Your task to perform on an android device: change timer sound Image 0: 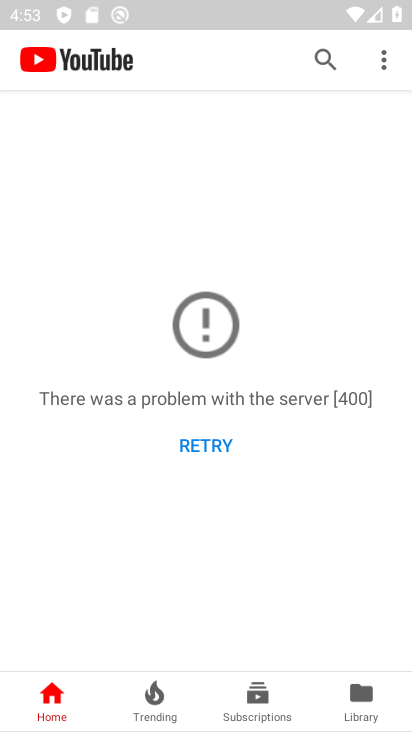
Step 0: press home button
Your task to perform on an android device: change timer sound Image 1: 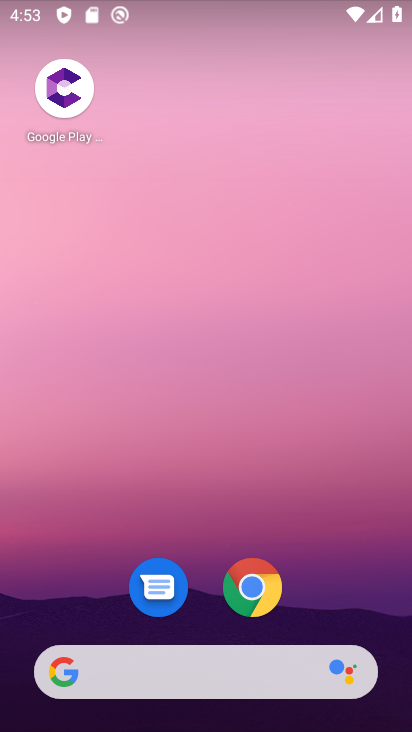
Step 1: drag from (311, 593) to (241, 131)
Your task to perform on an android device: change timer sound Image 2: 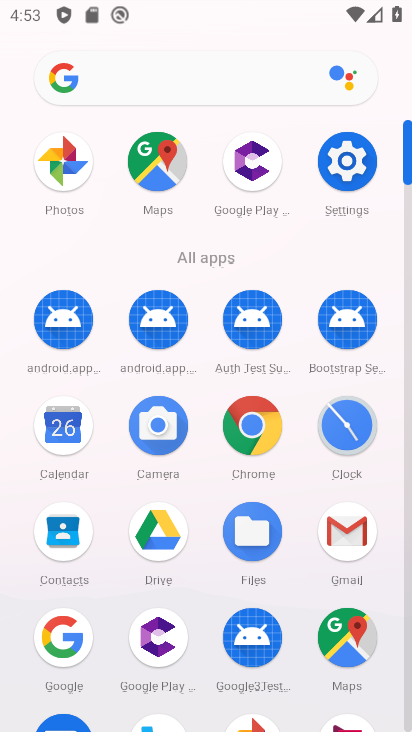
Step 2: click (347, 423)
Your task to perform on an android device: change timer sound Image 3: 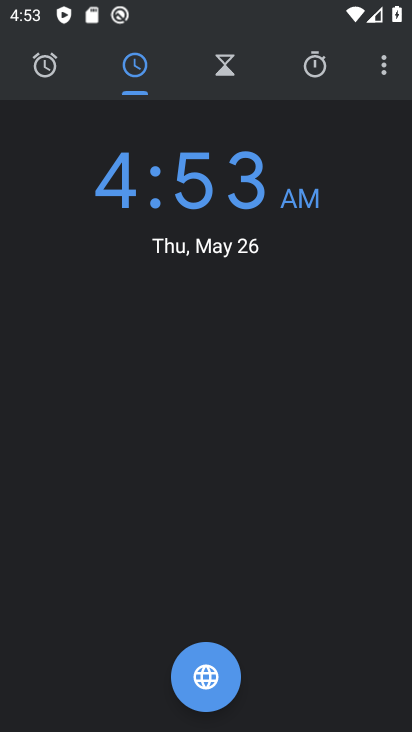
Step 3: click (387, 66)
Your task to perform on an android device: change timer sound Image 4: 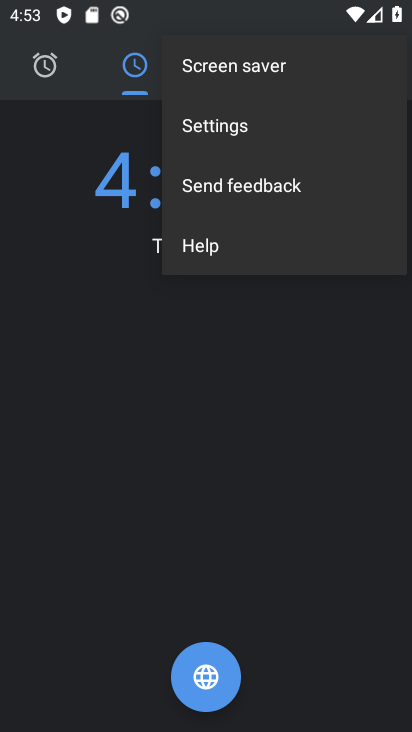
Step 4: click (220, 128)
Your task to perform on an android device: change timer sound Image 5: 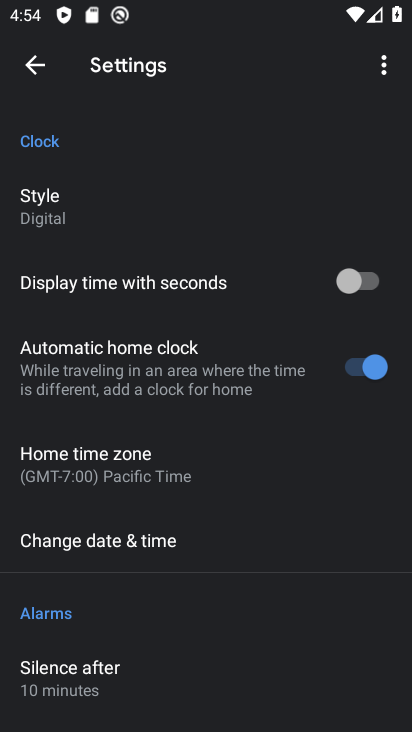
Step 5: drag from (163, 551) to (177, 503)
Your task to perform on an android device: change timer sound Image 6: 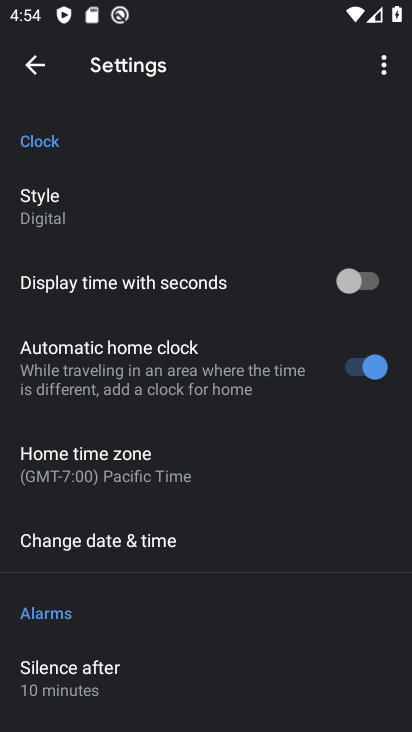
Step 6: drag from (151, 598) to (231, 394)
Your task to perform on an android device: change timer sound Image 7: 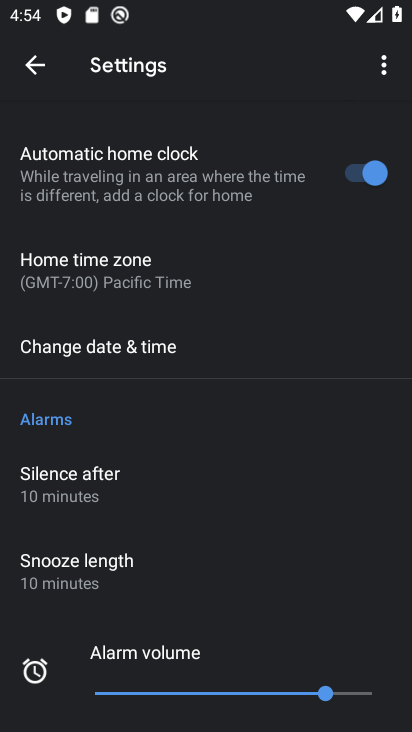
Step 7: drag from (196, 493) to (301, 182)
Your task to perform on an android device: change timer sound Image 8: 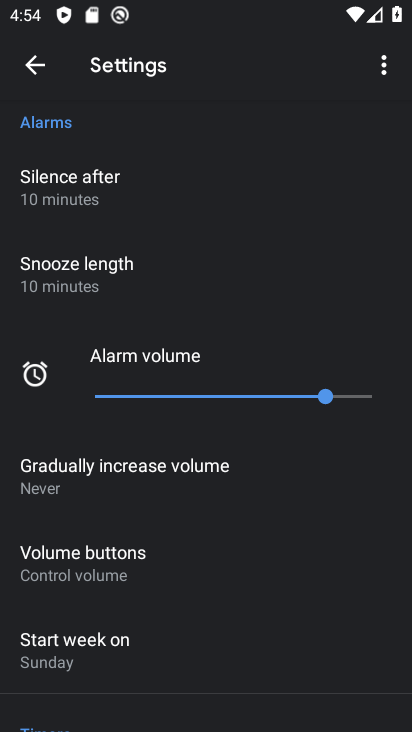
Step 8: drag from (238, 512) to (347, 295)
Your task to perform on an android device: change timer sound Image 9: 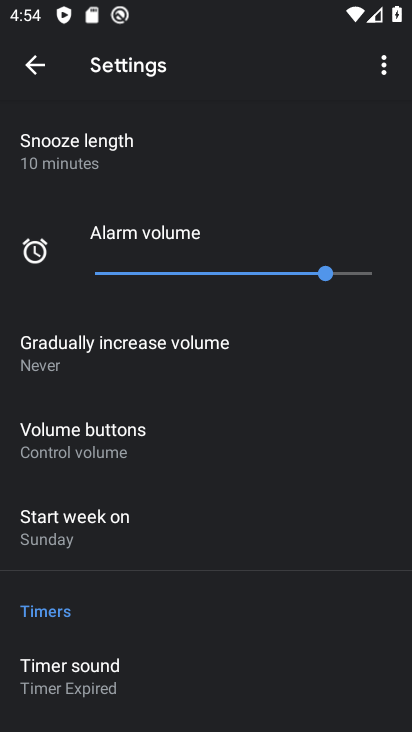
Step 9: drag from (224, 597) to (328, 421)
Your task to perform on an android device: change timer sound Image 10: 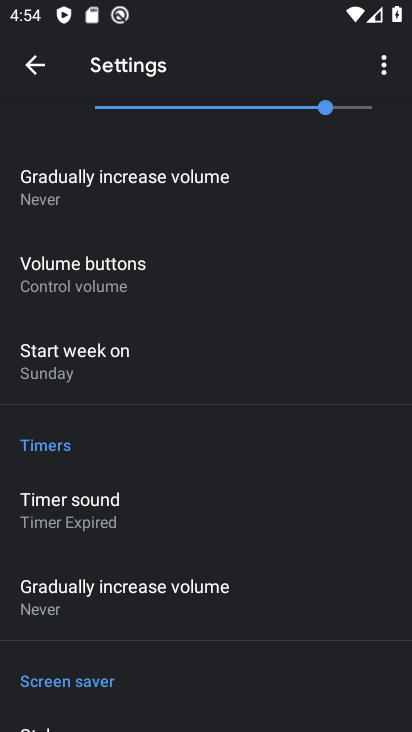
Step 10: click (105, 505)
Your task to perform on an android device: change timer sound Image 11: 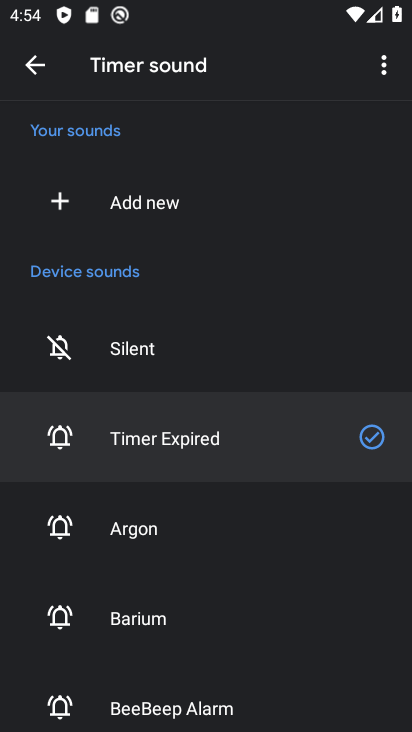
Step 11: drag from (193, 502) to (265, 334)
Your task to perform on an android device: change timer sound Image 12: 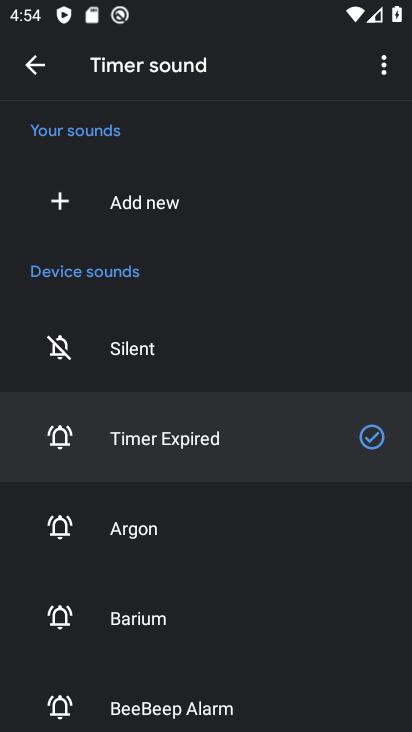
Step 12: drag from (150, 651) to (237, 353)
Your task to perform on an android device: change timer sound Image 13: 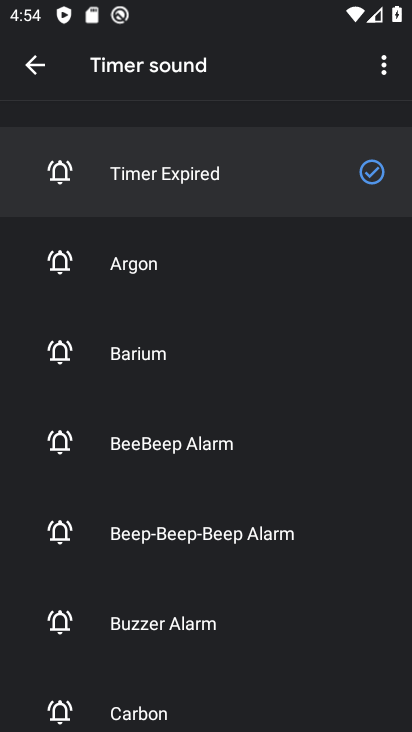
Step 13: drag from (193, 598) to (263, 281)
Your task to perform on an android device: change timer sound Image 14: 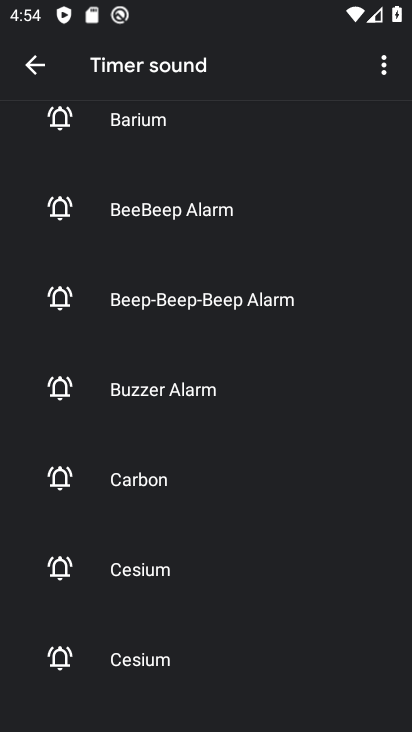
Step 14: click (148, 496)
Your task to perform on an android device: change timer sound Image 15: 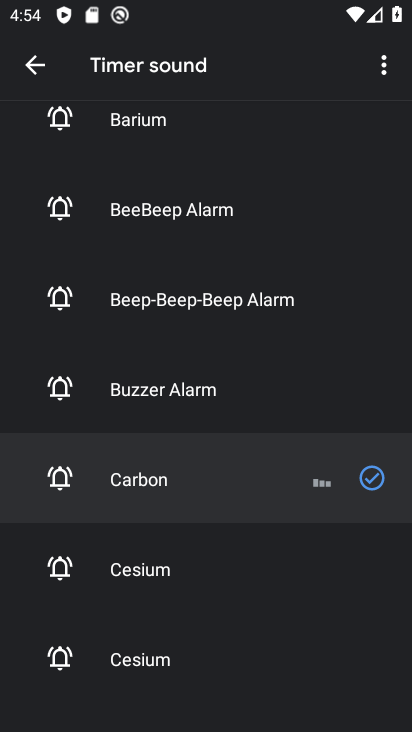
Step 15: task complete